Your task to perform on an android device: Open accessibility settings Image 0: 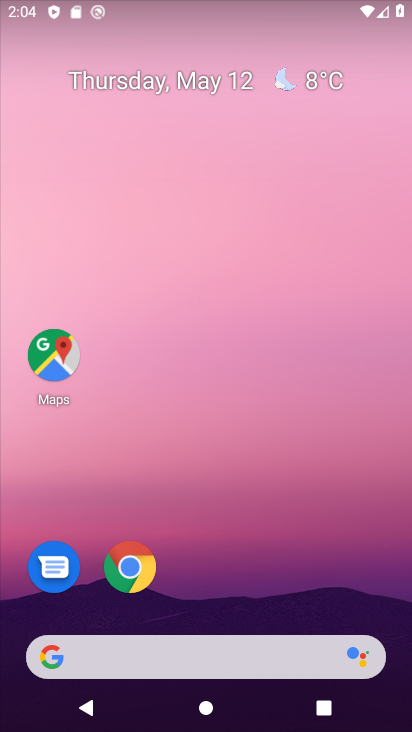
Step 0: drag from (207, 563) to (203, 138)
Your task to perform on an android device: Open accessibility settings Image 1: 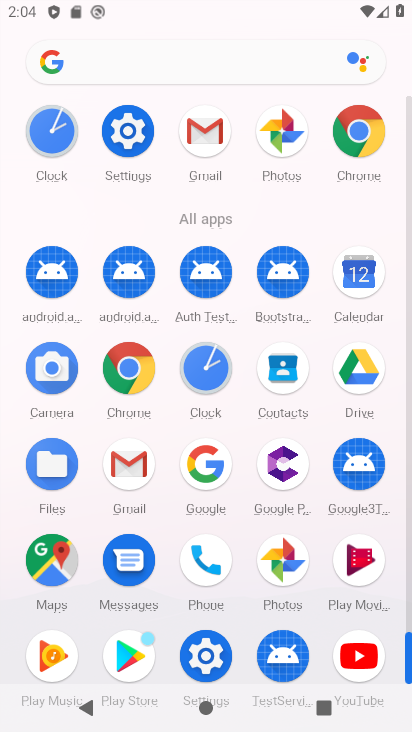
Step 1: click (124, 147)
Your task to perform on an android device: Open accessibility settings Image 2: 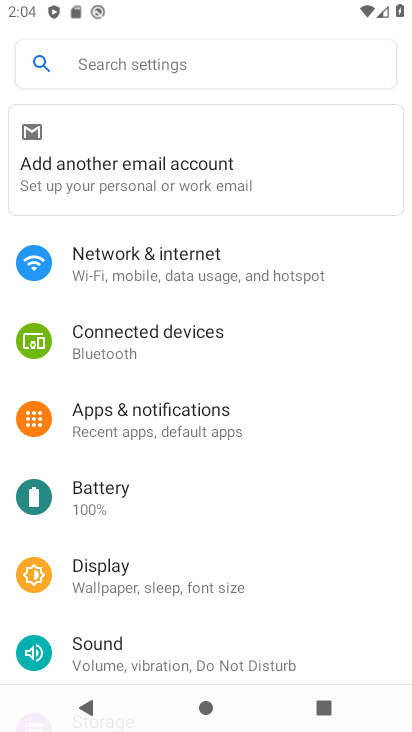
Step 2: drag from (216, 565) to (216, 406)
Your task to perform on an android device: Open accessibility settings Image 3: 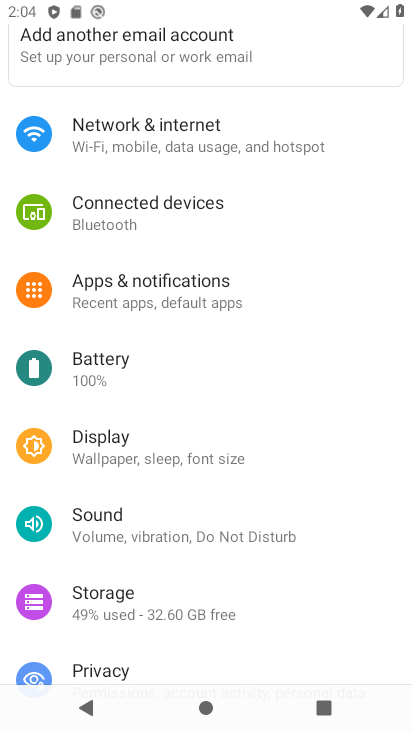
Step 3: drag from (235, 608) to (257, 350)
Your task to perform on an android device: Open accessibility settings Image 4: 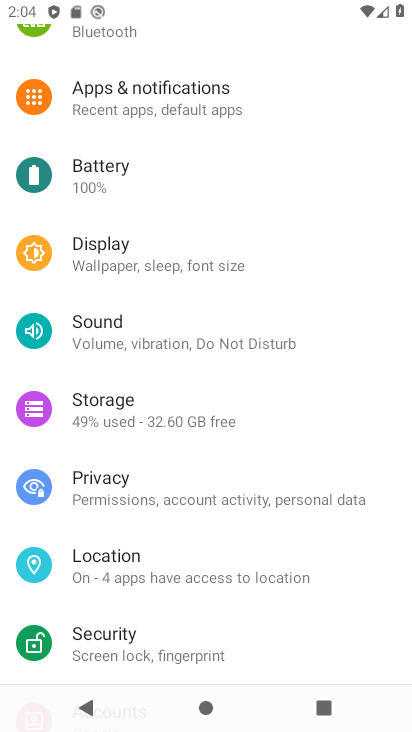
Step 4: drag from (249, 551) to (248, 284)
Your task to perform on an android device: Open accessibility settings Image 5: 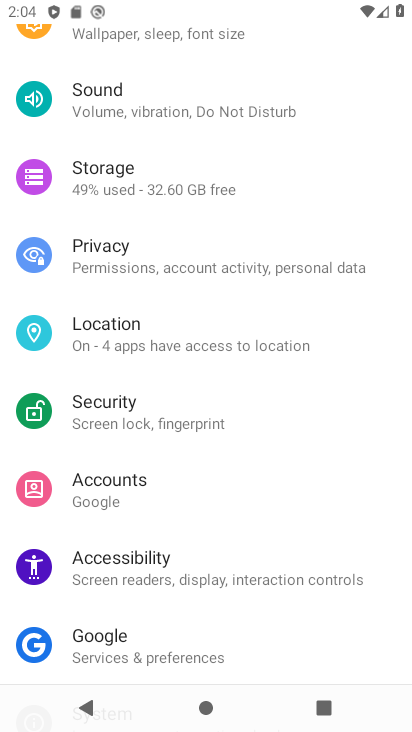
Step 5: click (188, 574)
Your task to perform on an android device: Open accessibility settings Image 6: 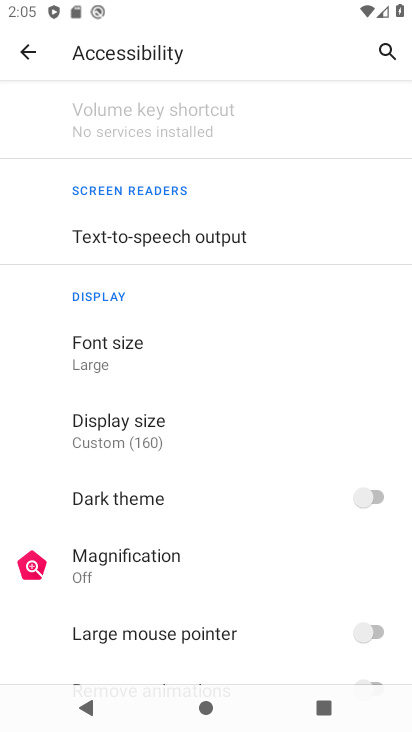
Step 6: task complete